Your task to perform on an android device: change timer sound Image 0: 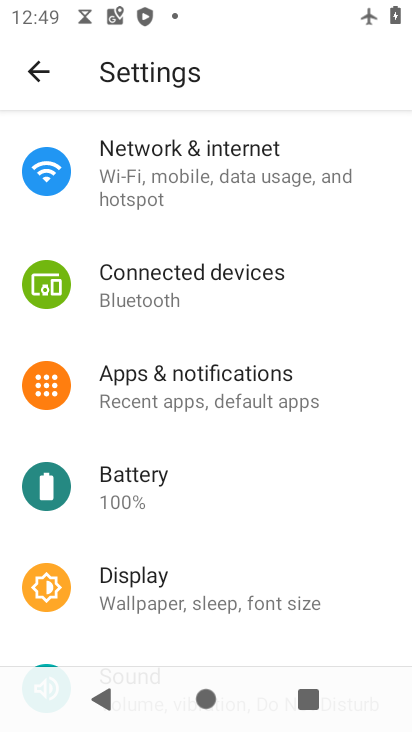
Step 0: press home button
Your task to perform on an android device: change timer sound Image 1: 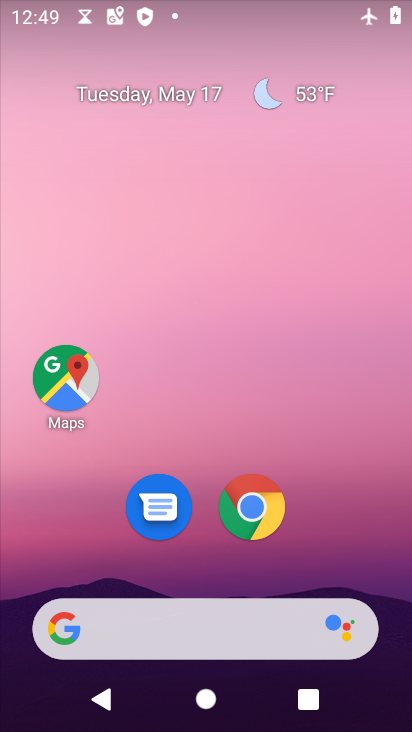
Step 1: drag from (208, 570) to (231, 0)
Your task to perform on an android device: change timer sound Image 2: 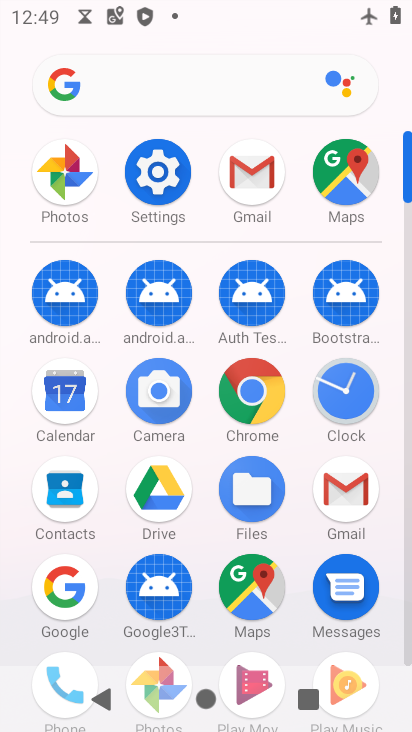
Step 2: click (336, 410)
Your task to perform on an android device: change timer sound Image 3: 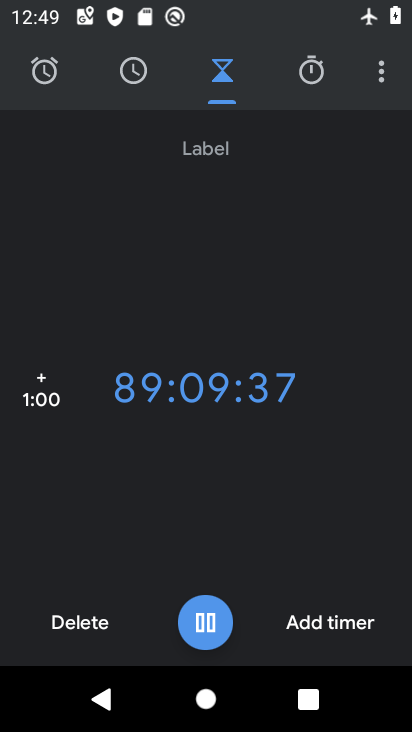
Step 3: click (373, 75)
Your task to perform on an android device: change timer sound Image 4: 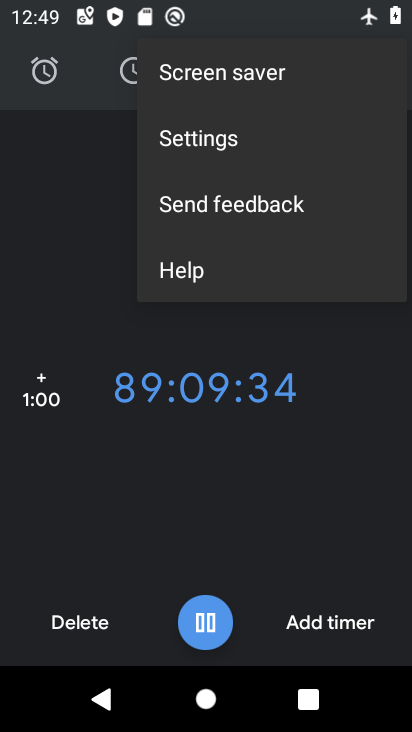
Step 4: click (261, 136)
Your task to perform on an android device: change timer sound Image 5: 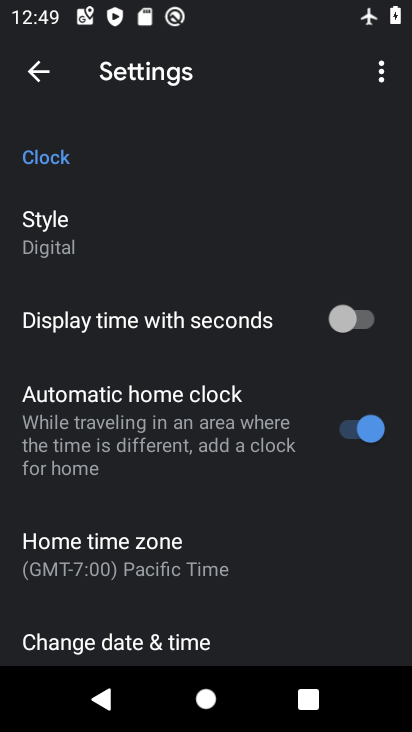
Step 5: drag from (220, 577) to (207, 339)
Your task to perform on an android device: change timer sound Image 6: 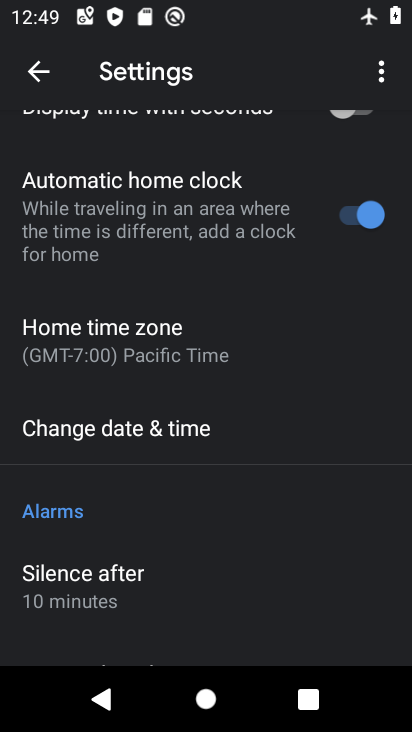
Step 6: drag from (208, 559) to (210, 350)
Your task to perform on an android device: change timer sound Image 7: 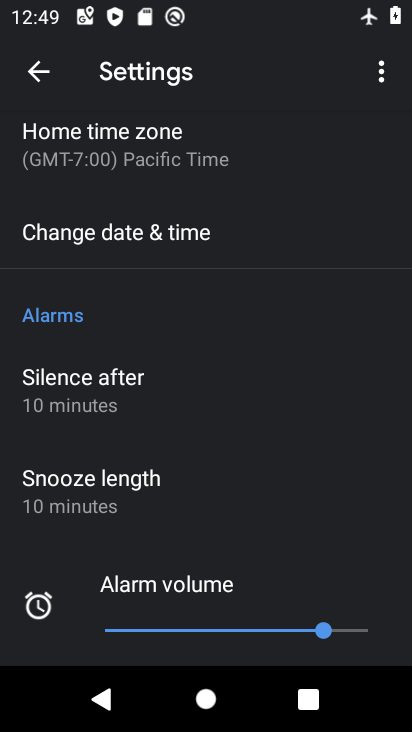
Step 7: drag from (169, 486) to (174, 296)
Your task to perform on an android device: change timer sound Image 8: 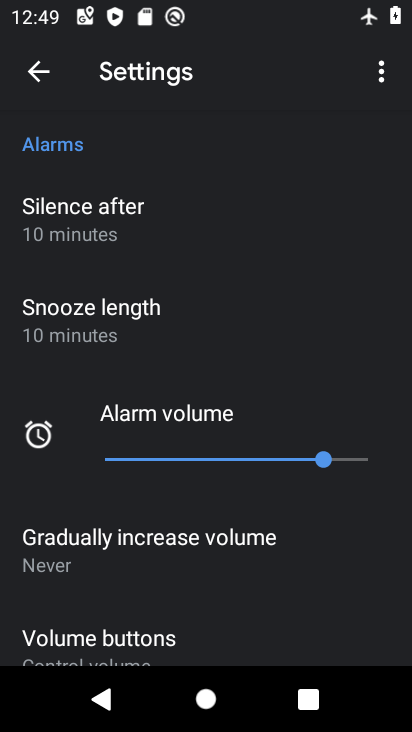
Step 8: drag from (182, 568) to (202, 286)
Your task to perform on an android device: change timer sound Image 9: 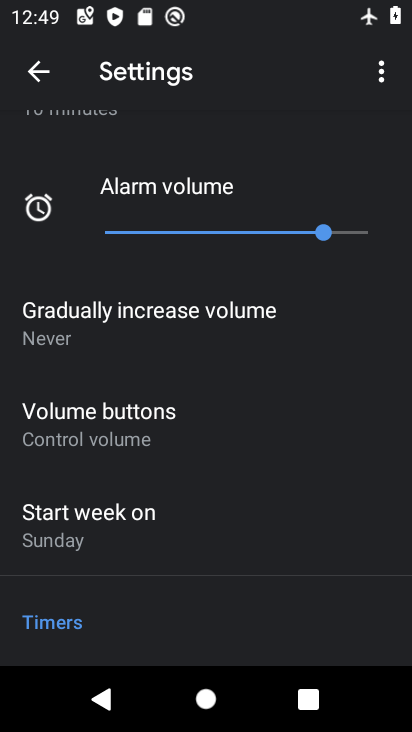
Step 9: drag from (178, 528) to (192, 343)
Your task to perform on an android device: change timer sound Image 10: 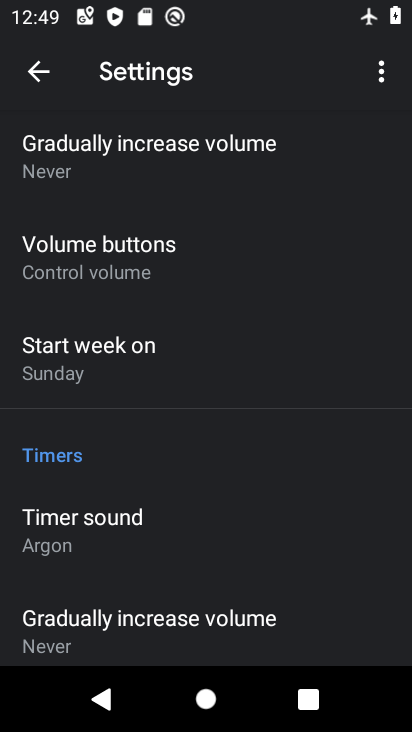
Step 10: click (145, 528)
Your task to perform on an android device: change timer sound Image 11: 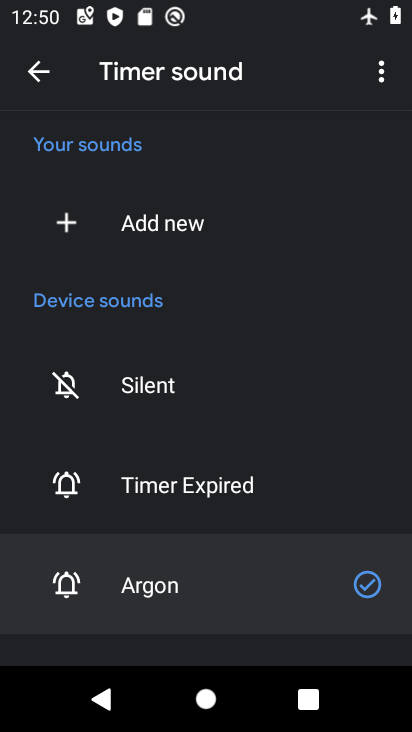
Step 11: click (180, 478)
Your task to perform on an android device: change timer sound Image 12: 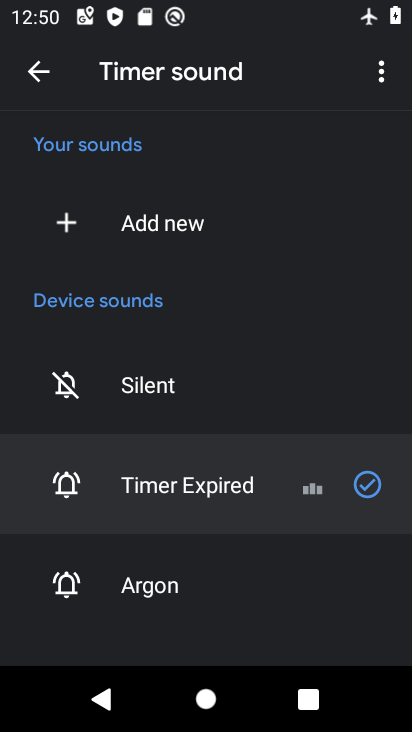
Step 12: task complete